Your task to perform on an android device: Show me popular games on the Play Store Image 0: 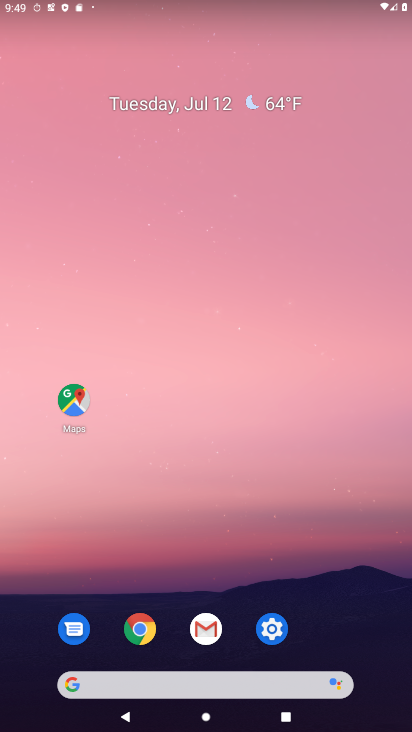
Step 0: drag from (249, 695) to (252, 112)
Your task to perform on an android device: Show me popular games on the Play Store Image 1: 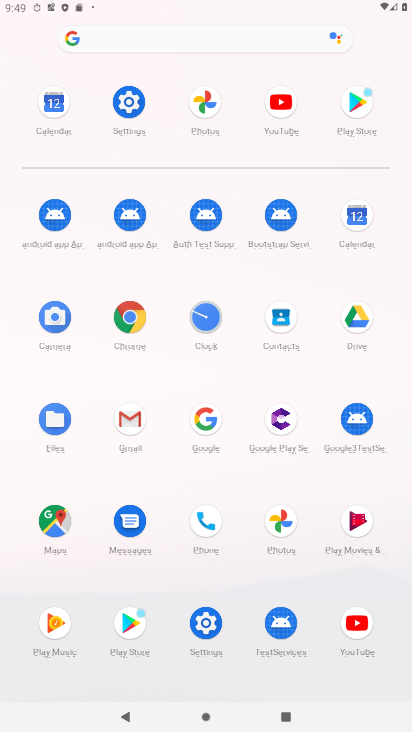
Step 1: click (119, 610)
Your task to perform on an android device: Show me popular games on the Play Store Image 2: 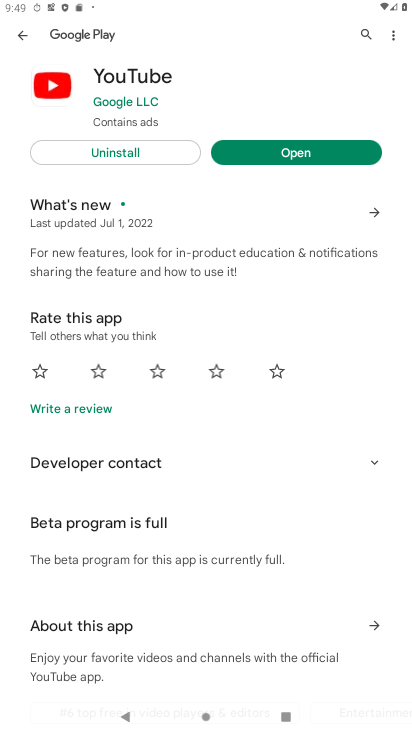
Step 2: click (360, 28)
Your task to perform on an android device: Show me popular games on the Play Store Image 3: 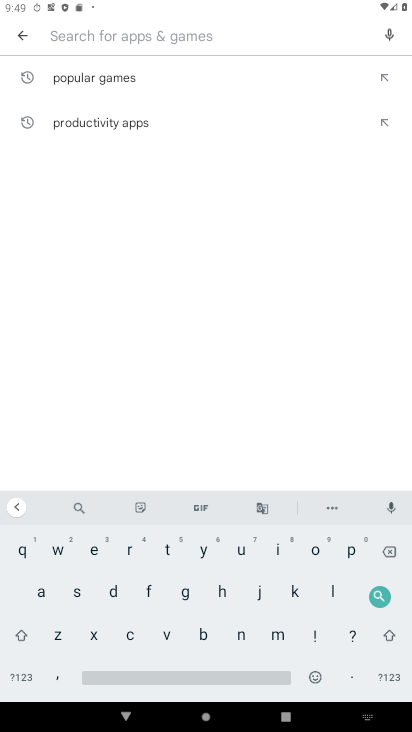
Step 3: click (90, 82)
Your task to perform on an android device: Show me popular games on the Play Store Image 4: 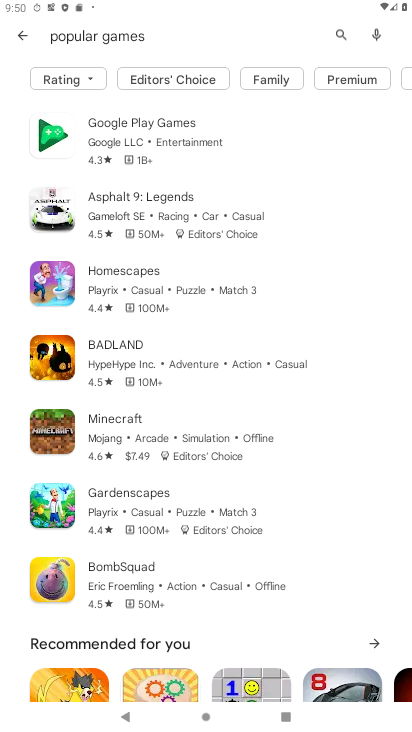
Step 4: task complete